Your task to perform on an android device: Go to sound settings Image 0: 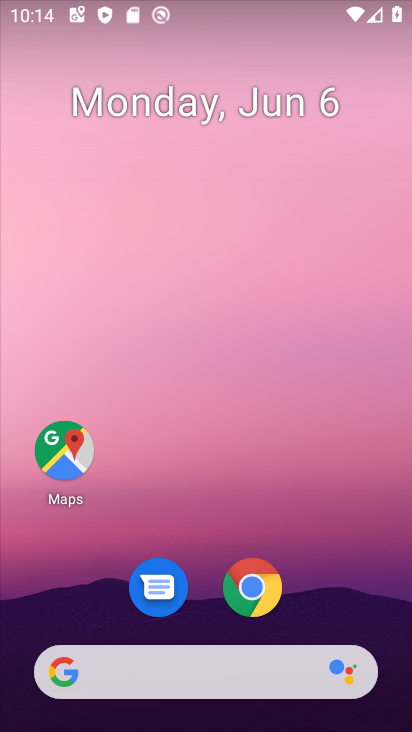
Step 0: drag from (225, 407) to (276, 54)
Your task to perform on an android device: Go to sound settings Image 1: 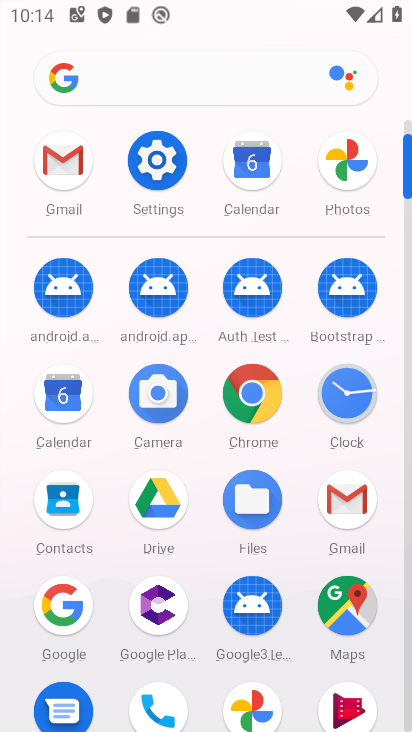
Step 1: click (159, 180)
Your task to perform on an android device: Go to sound settings Image 2: 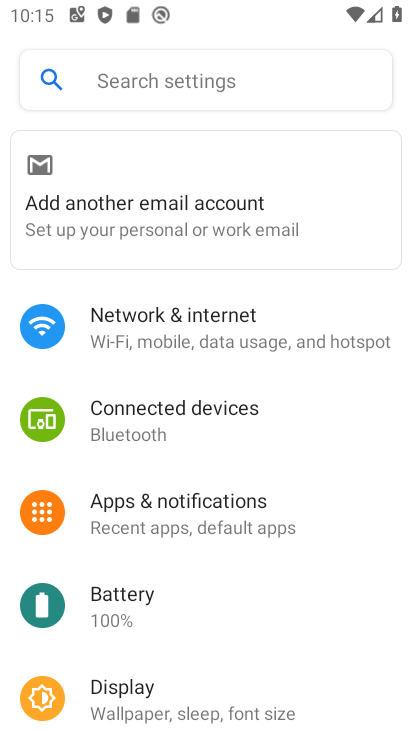
Step 2: drag from (281, 611) to (346, 45)
Your task to perform on an android device: Go to sound settings Image 3: 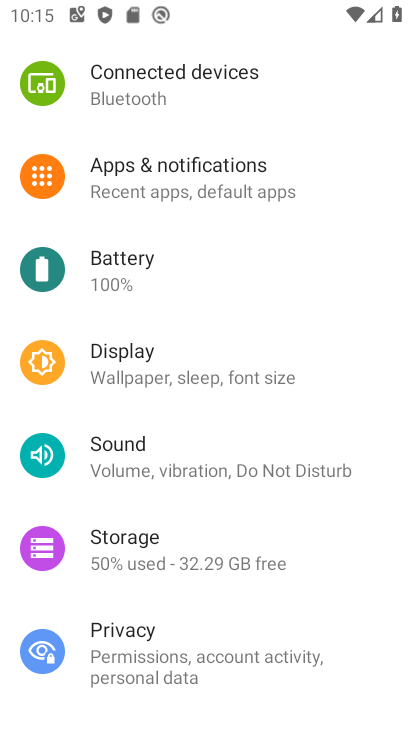
Step 3: click (235, 470)
Your task to perform on an android device: Go to sound settings Image 4: 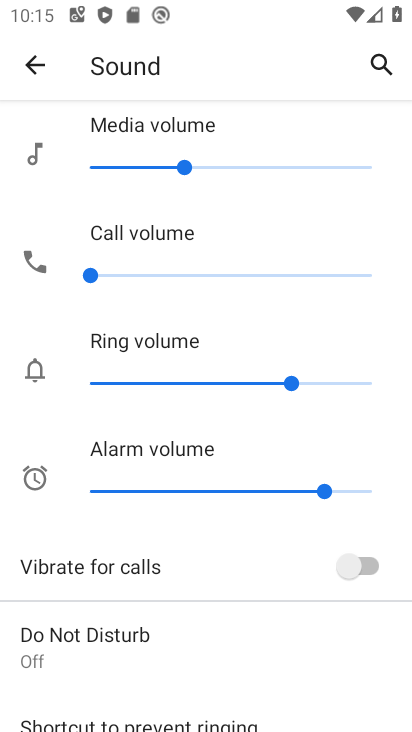
Step 4: task complete